Your task to perform on an android device: Open calendar and show me the fourth week of next month Image 0: 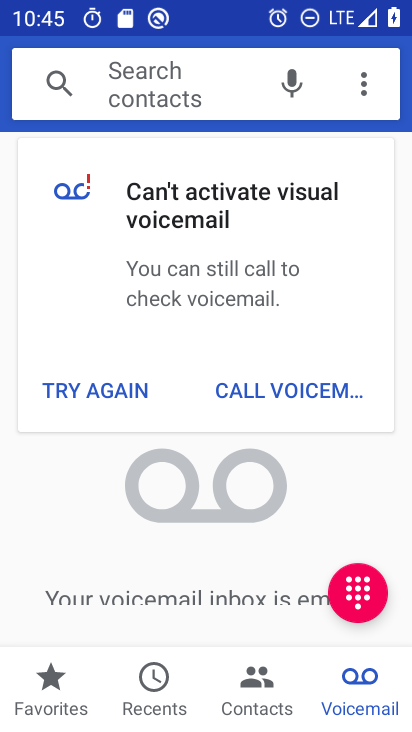
Step 0: press home button
Your task to perform on an android device: Open calendar and show me the fourth week of next month Image 1: 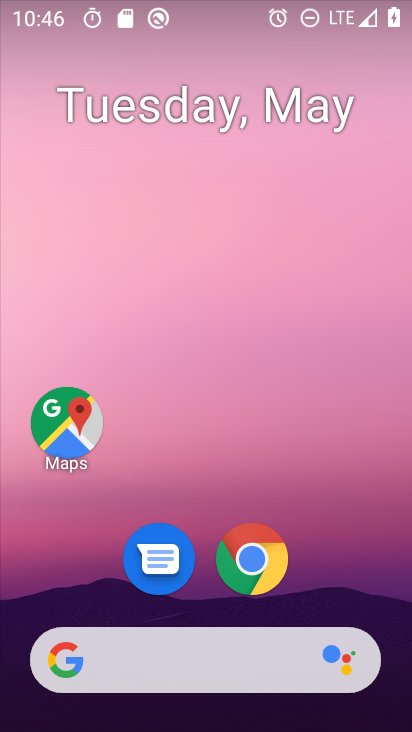
Step 1: drag from (383, 660) to (274, 0)
Your task to perform on an android device: Open calendar and show me the fourth week of next month Image 2: 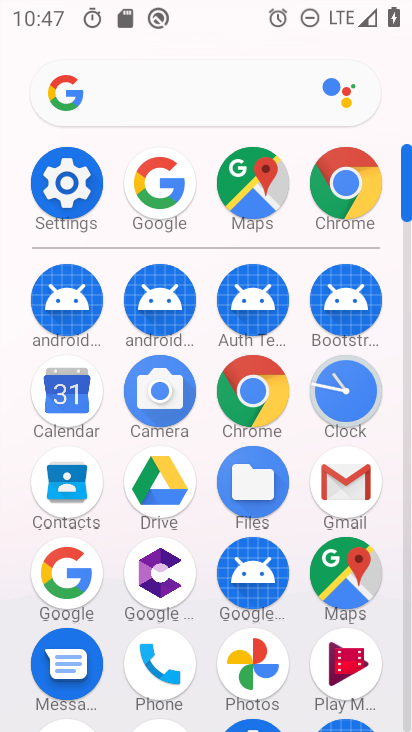
Step 2: click (46, 414)
Your task to perform on an android device: Open calendar and show me the fourth week of next month Image 3: 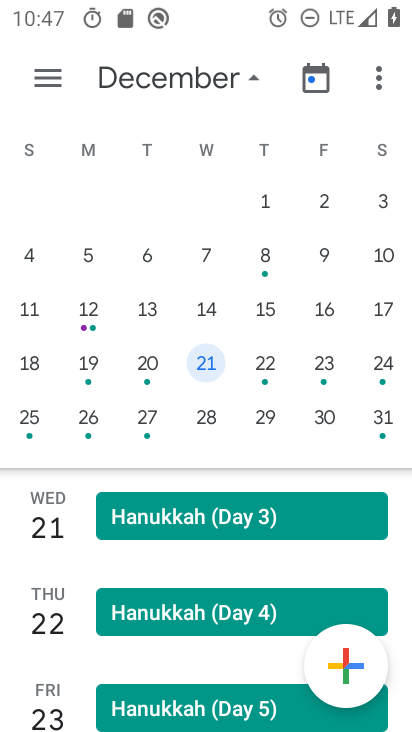
Step 3: drag from (351, 311) to (33, 333)
Your task to perform on an android device: Open calendar and show me the fourth week of next month Image 4: 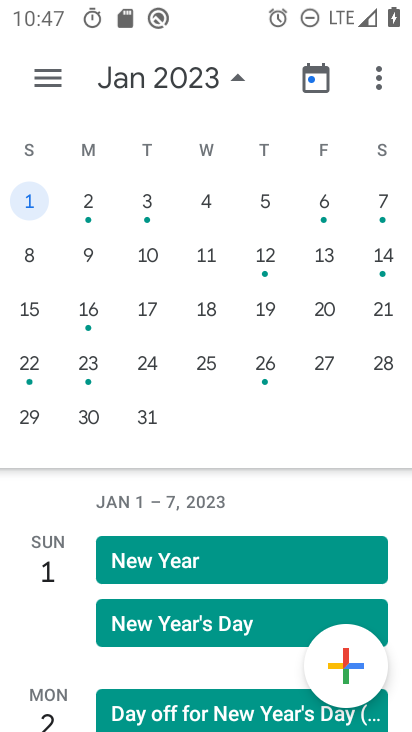
Step 4: click (78, 359)
Your task to perform on an android device: Open calendar and show me the fourth week of next month Image 5: 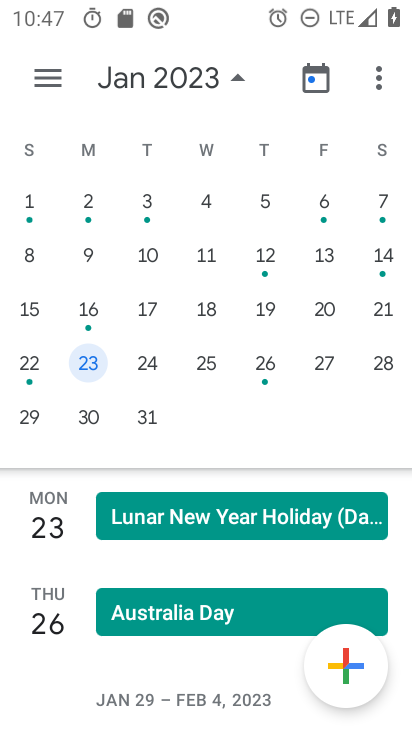
Step 5: task complete